Your task to perform on an android device: Go to Google Image 0: 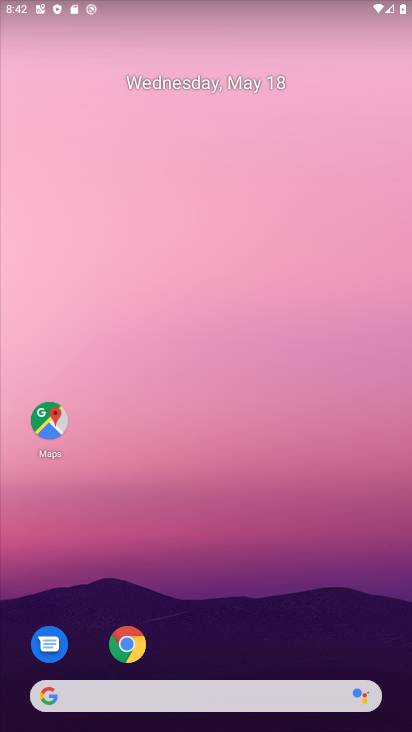
Step 0: click (204, 691)
Your task to perform on an android device: Go to Google Image 1: 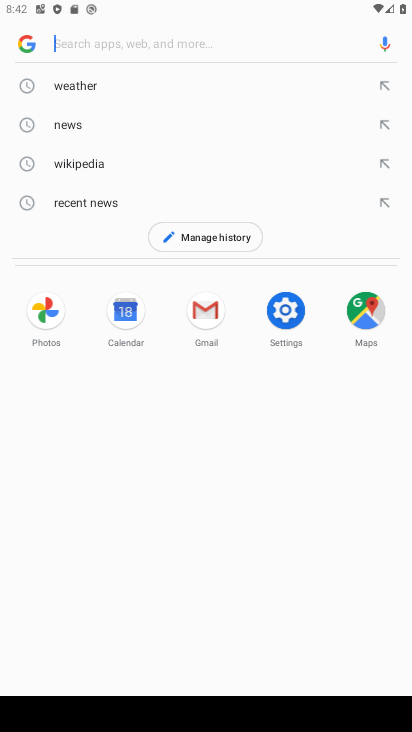
Step 1: task complete